Your task to perform on an android device: toggle data saver in the chrome app Image 0: 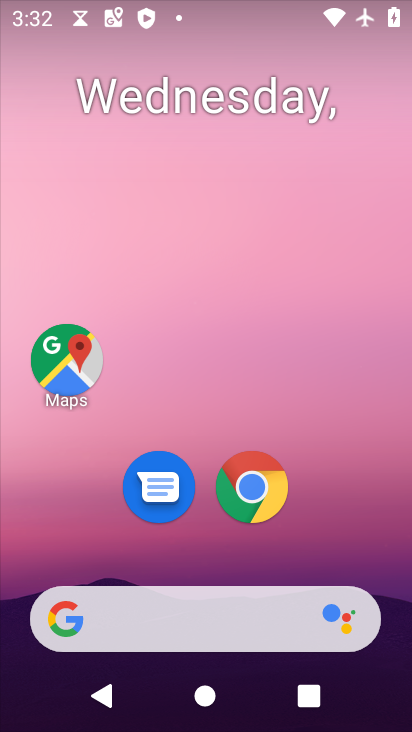
Step 0: drag from (357, 552) to (385, 68)
Your task to perform on an android device: toggle data saver in the chrome app Image 1: 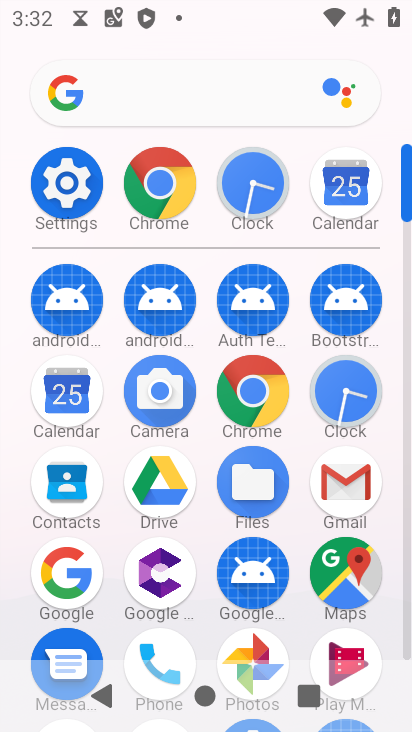
Step 1: click (175, 201)
Your task to perform on an android device: toggle data saver in the chrome app Image 2: 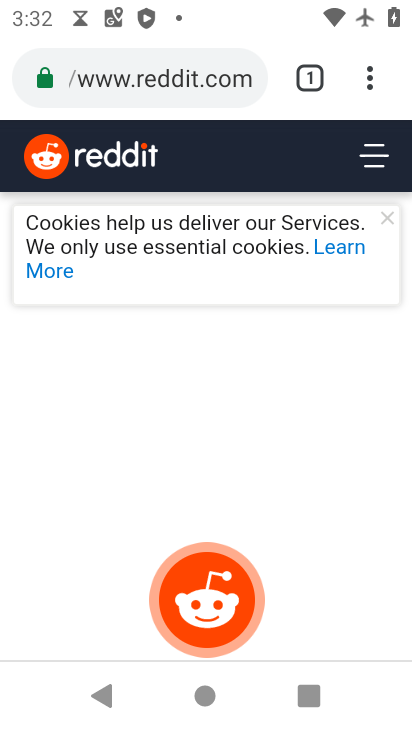
Step 2: drag from (378, 89) to (77, 564)
Your task to perform on an android device: toggle data saver in the chrome app Image 3: 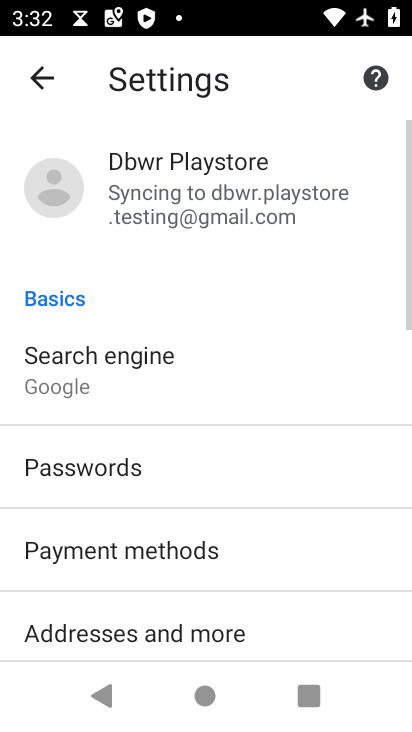
Step 3: drag from (104, 603) to (175, 174)
Your task to perform on an android device: toggle data saver in the chrome app Image 4: 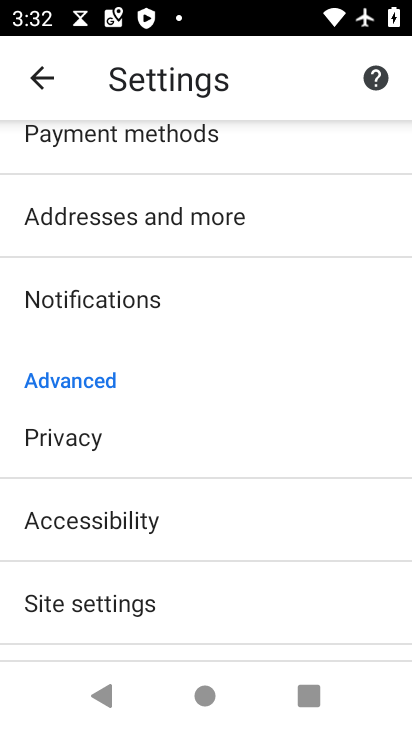
Step 4: drag from (154, 548) to (250, 159)
Your task to perform on an android device: toggle data saver in the chrome app Image 5: 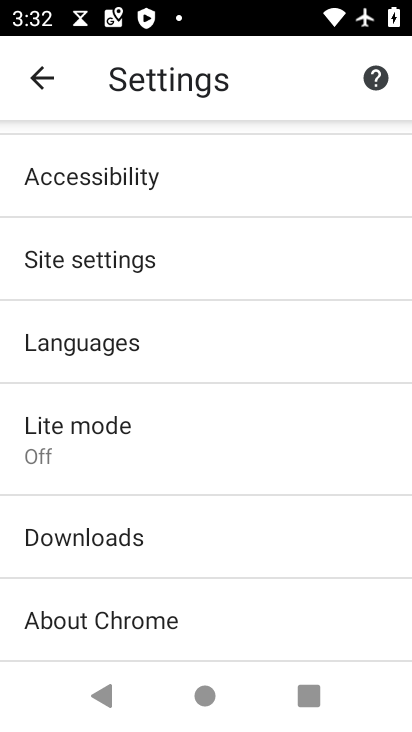
Step 5: click (112, 447)
Your task to perform on an android device: toggle data saver in the chrome app Image 6: 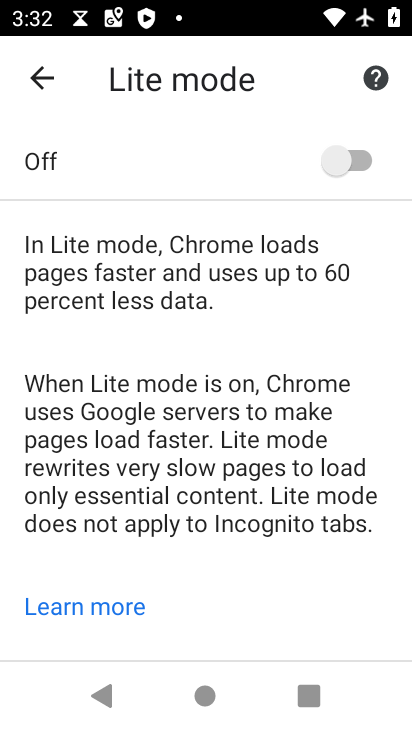
Step 6: click (354, 188)
Your task to perform on an android device: toggle data saver in the chrome app Image 7: 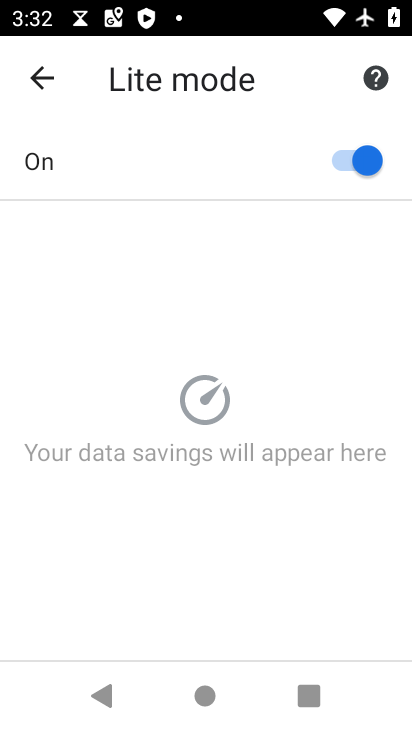
Step 7: task complete